Your task to perform on an android device: Open battery settings Image 0: 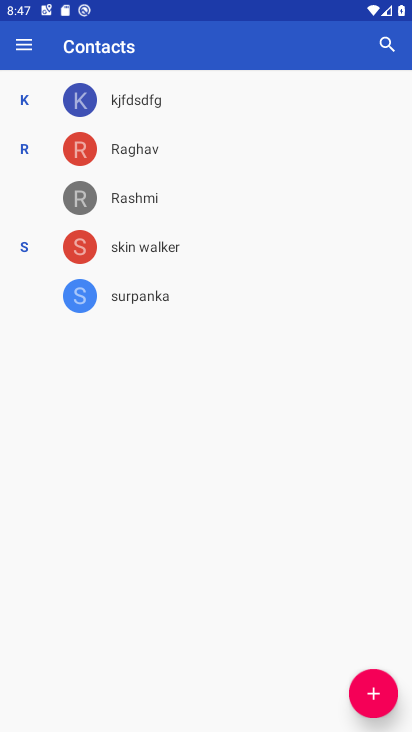
Step 0: press home button
Your task to perform on an android device: Open battery settings Image 1: 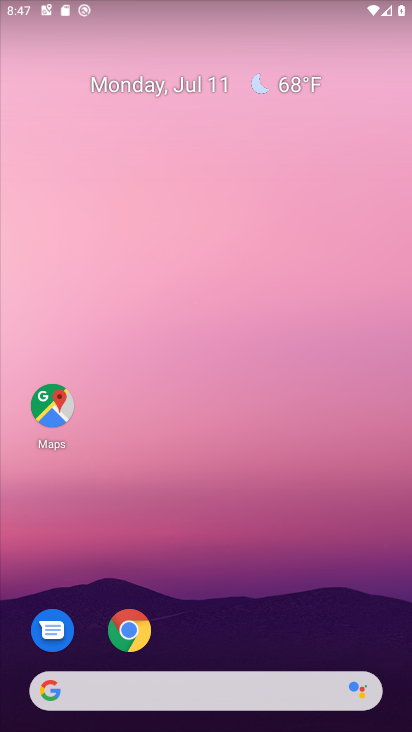
Step 1: drag from (256, 657) to (245, 70)
Your task to perform on an android device: Open battery settings Image 2: 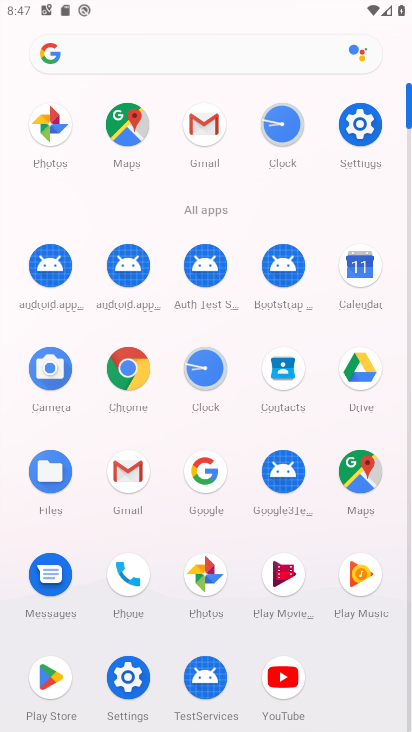
Step 2: click (125, 690)
Your task to perform on an android device: Open battery settings Image 3: 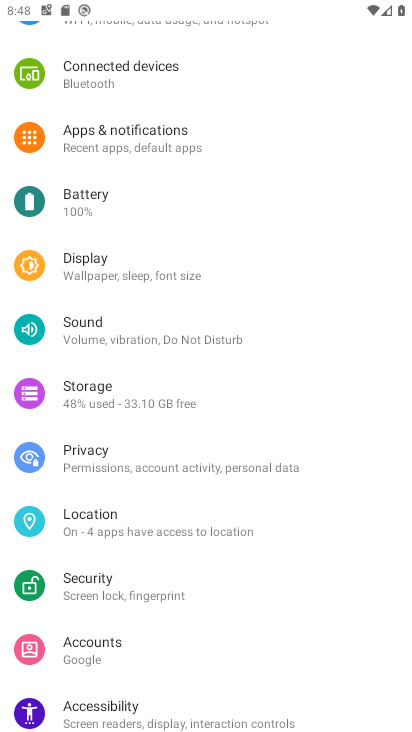
Step 3: click (102, 194)
Your task to perform on an android device: Open battery settings Image 4: 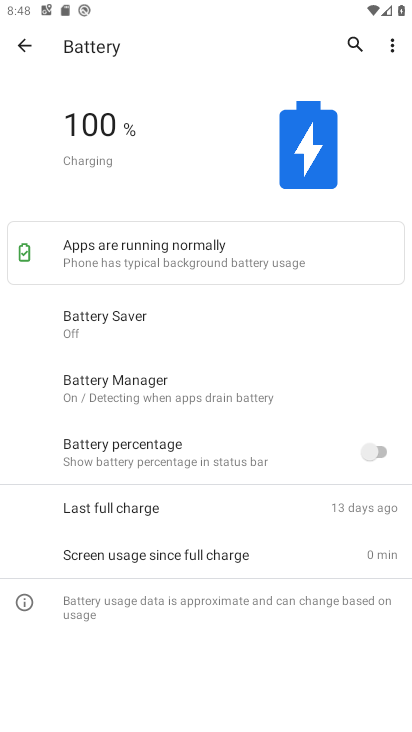
Step 4: task complete